Your task to perform on an android device: turn off data saver in the chrome app Image 0: 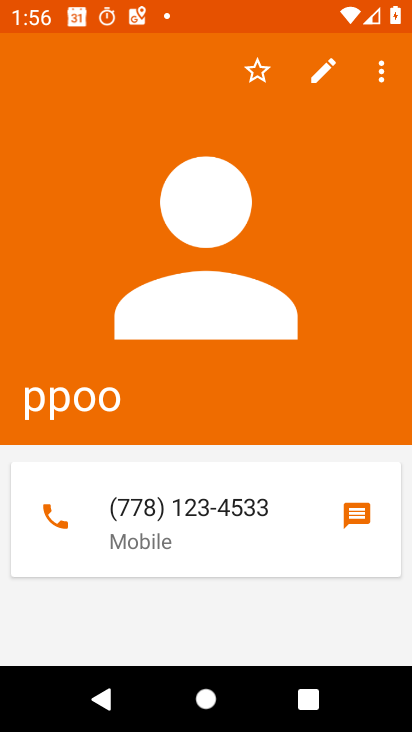
Step 0: press home button
Your task to perform on an android device: turn off data saver in the chrome app Image 1: 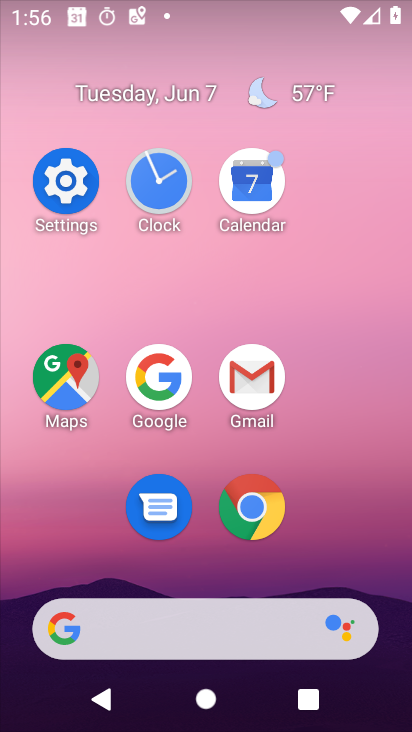
Step 1: click (244, 524)
Your task to perform on an android device: turn off data saver in the chrome app Image 2: 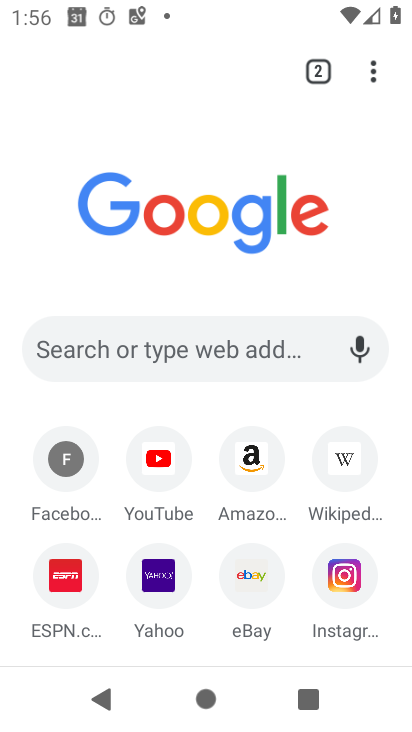
Step 2: click (377, 83)
Your task to perform on an android device: turn off data saver in the chrome app Image 3: 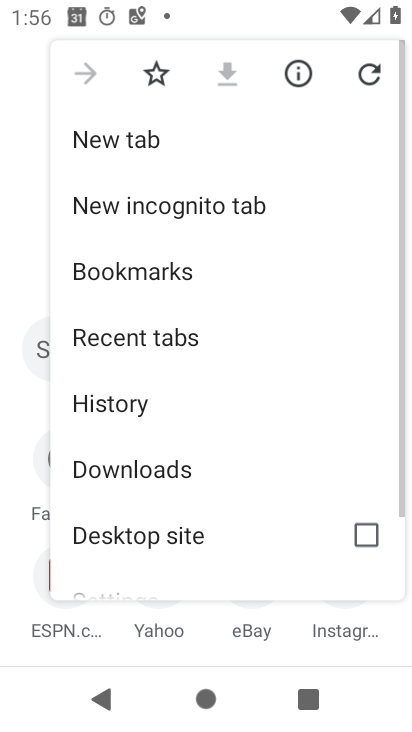
Step 3: drag from (211, 491) to (251, 109)
Your task to perform on an android device: turn off data saver in the chrome app Image 4: 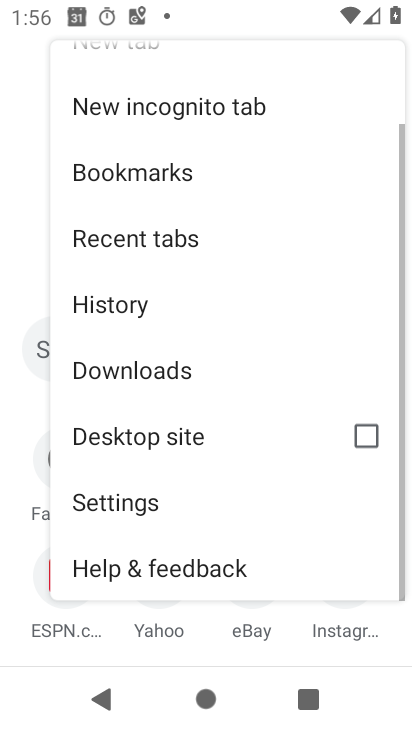
Step 4: click (164, 485)
Your task to perform on an android device: turn off data saver in the chrome app Image 5: 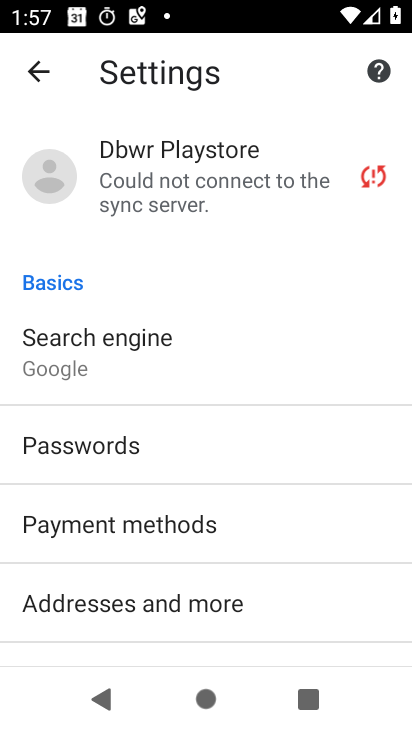
Step 5: drag from (164, 485) to (166, 72)
Your task to perform on an android device: turn off data saver in the chrome app Image 6: 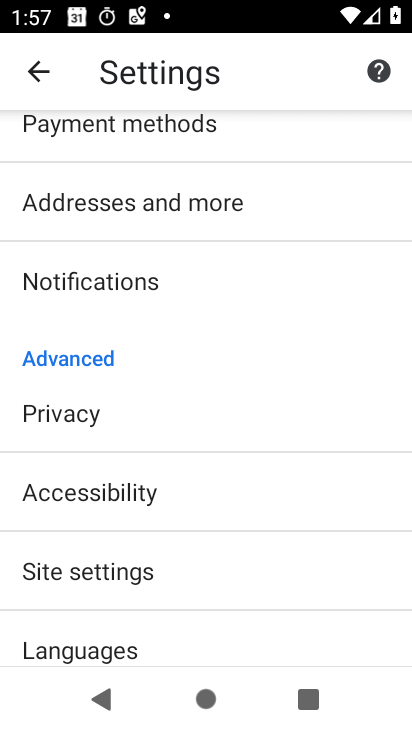
Step 6: drag from (124, 587) to (151, 185)
Your task to perform on an android device: turn off data saver in the chrome app Image 7: 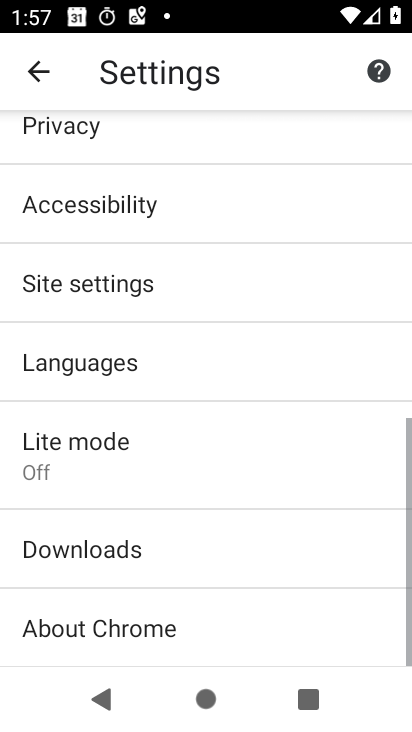
Step 7: drag from (187, 419) to (230, 50)
Your task to perform on an android device: turn off data saver in the chrome app Image 8: 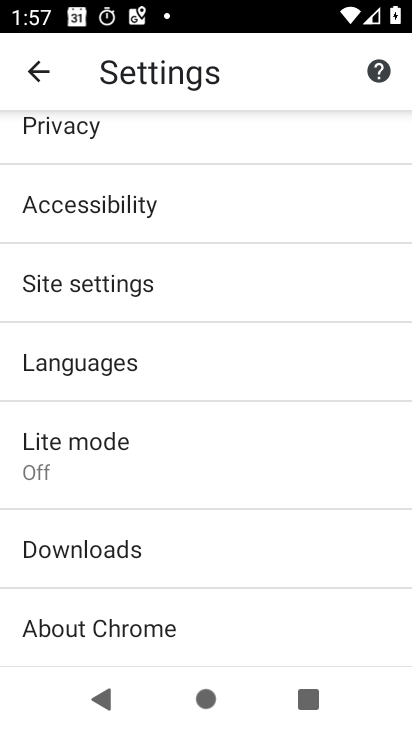
Step 8: click (160, 443)
Your task to perform on an android device: turn off data saver in the chrome app Image 9: 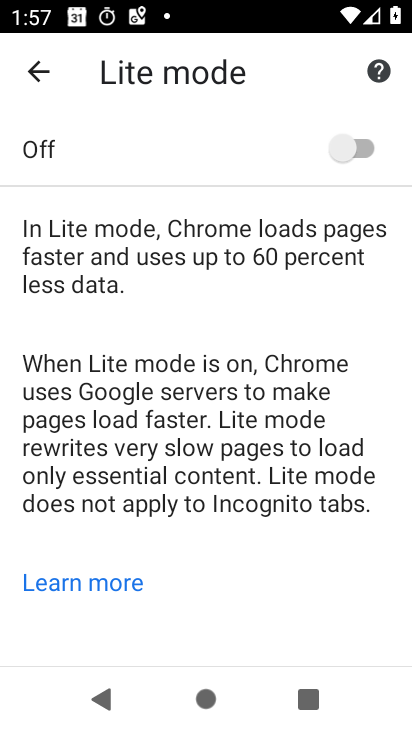
Step 9: task complete